Your task to perform on an android device: open wifi settings Image 0: 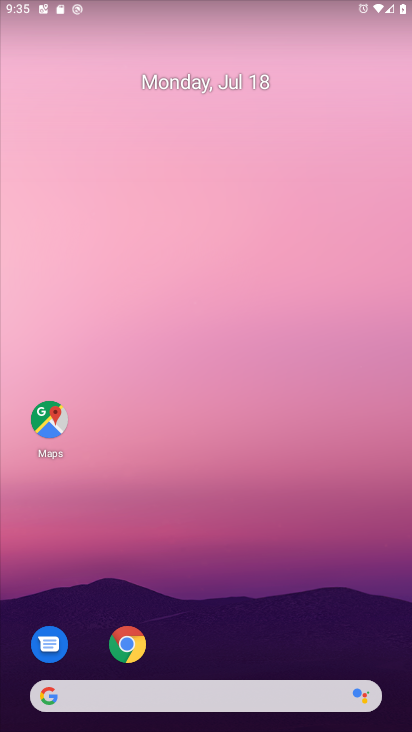
Step 0: drag from (200, 681) to (206, 161)
Your task to perform on an android device: open wifi settings Image 1: 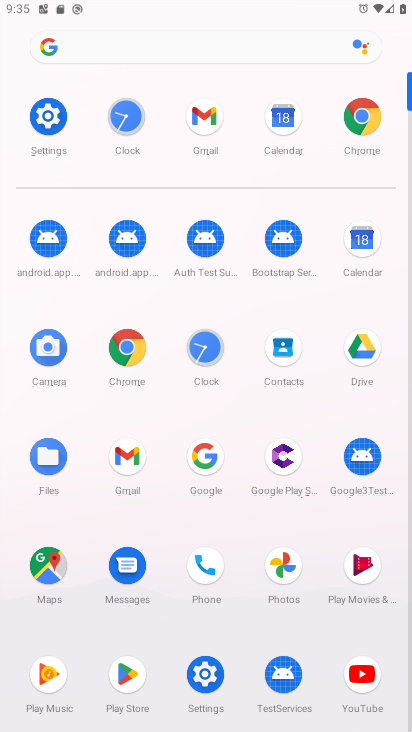
Step 1: click (51, 128)
Your task to perform on an android device: open wifi settings Image 2: 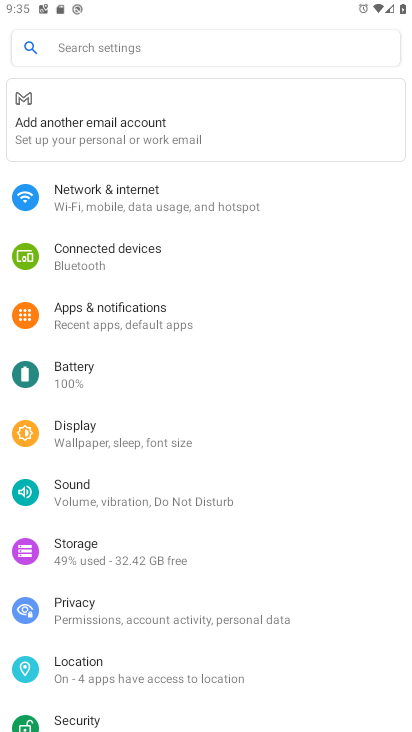
Step 2: click (234, 190)
Your task to perform on an android device: open wifi settings Image 3: 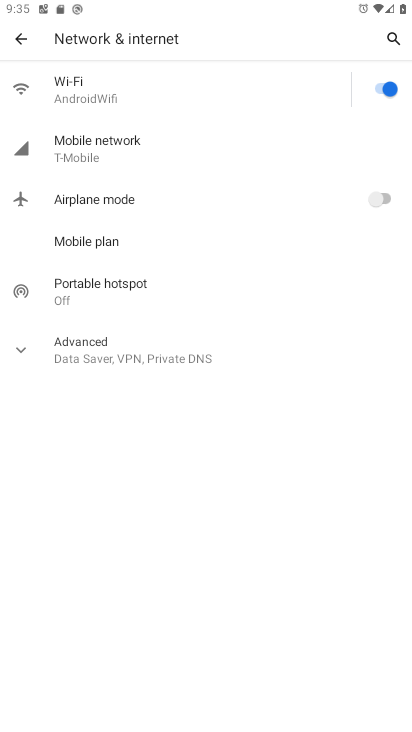
Step 3: task complete